Your task to perform on an android device: turn off location Image 0: 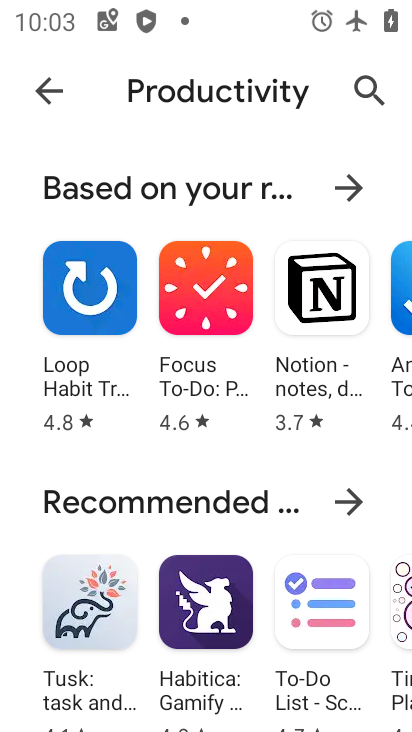
Step 0: press home button
Your task to perform on an android device: turn off location Image 1: 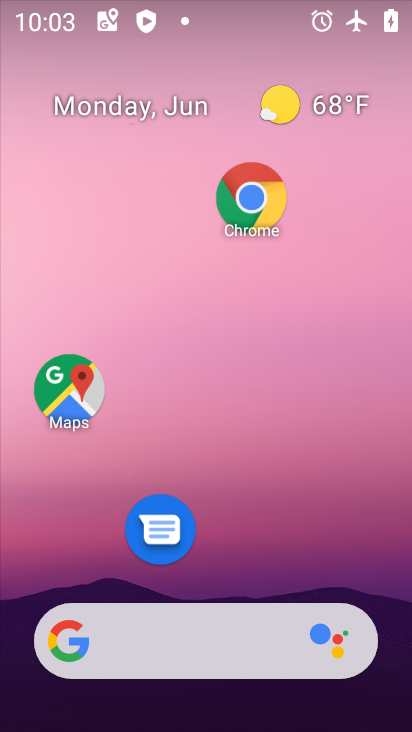
Step 1: drag from (203, 580) to (226, 188)
Your task to perform on an android device: turn off location Image 2: 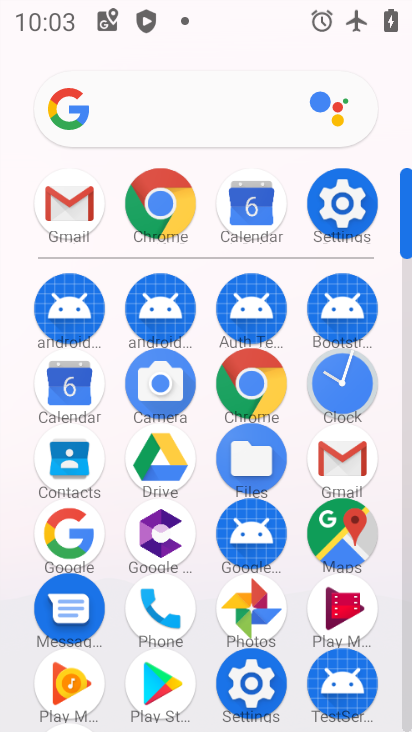
Step 2: click (327, 218)
Your task to perform on an android device: turn off location Image 3: 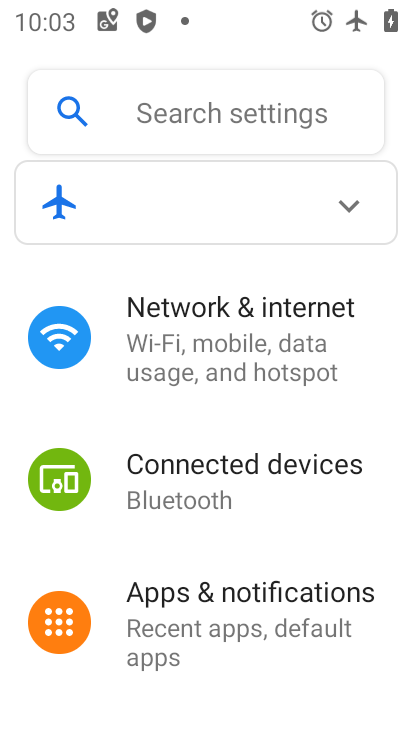
Step 3: drag from (228, 631) to (229, 228)
Your task to perform on an android device: turn off location Image 4: 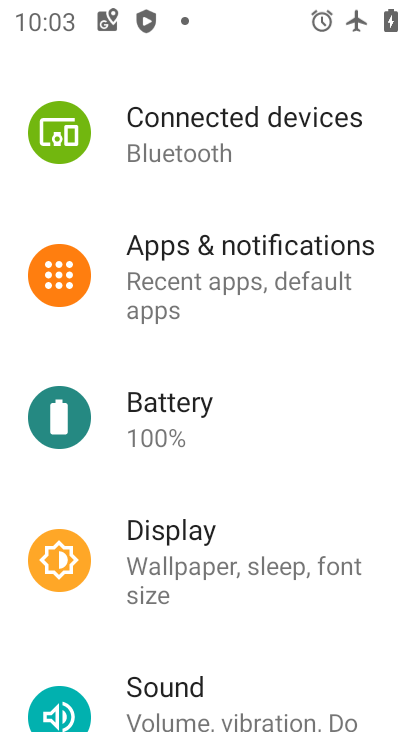
Step 4: drag from (225, 620) to (263, 329)
Your task to perform on an android device: turn off location Image 5: 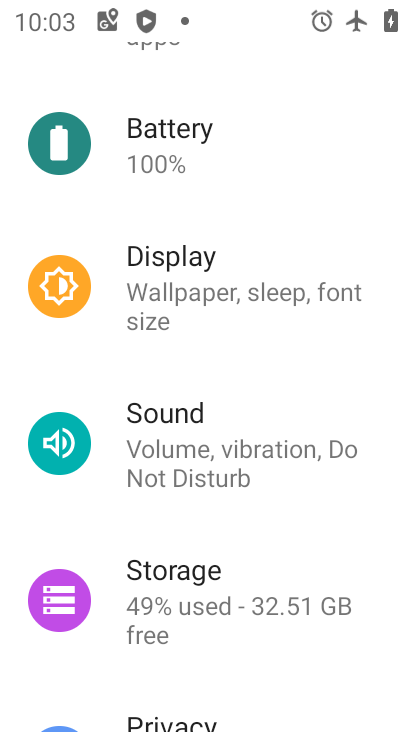
Step 5: drag from (237, 598) to (256, 255)
Your task to perform on an android device: turn off location Image 6: 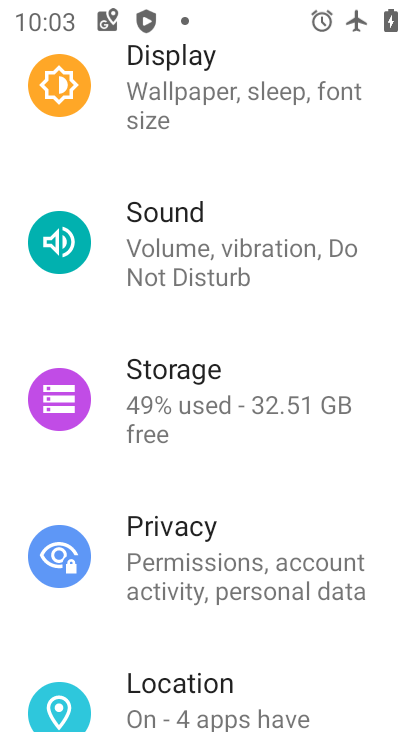
Step 6: click (198, 662)
Your task to perform on an android device: turn off location Image 7: 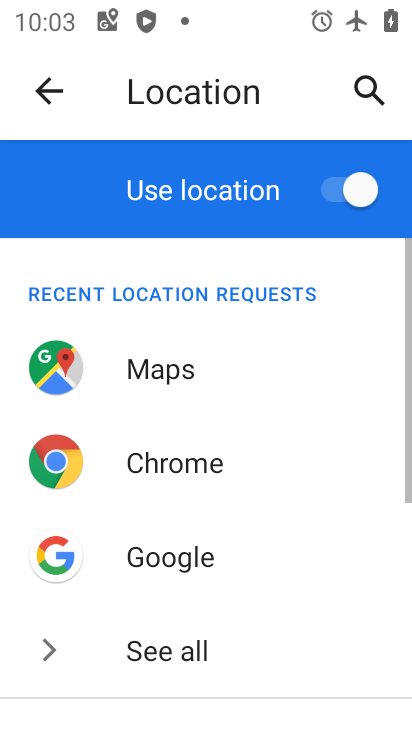
Step 7: click (343, 164)
Your task to perform on an android device: turn off location Image 8: 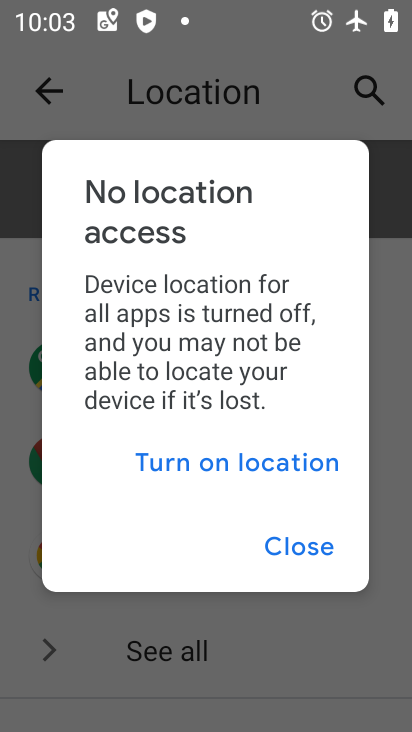
Step 8: task complete